Your task to perform on an android device: turn pop-ups on in chrome Image 0: 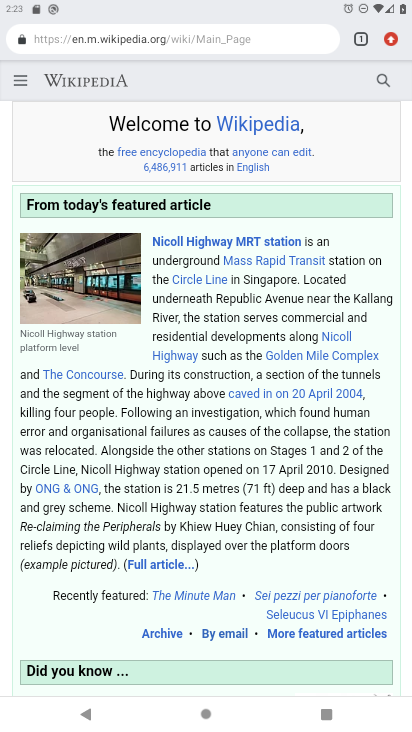
Step 0: click (387, 43)
Your task to perform on an android device: turn pop-ups on in chrome Image 1: 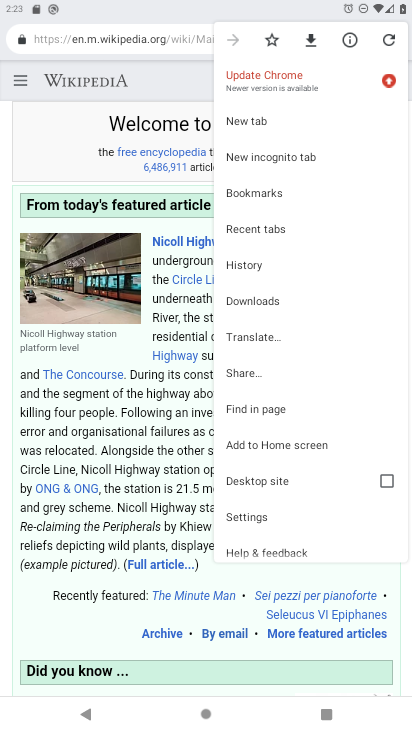
Step 1: click (261, 509)
Your task to perform on an android device: turn pop-ups on in chrome Image 2: 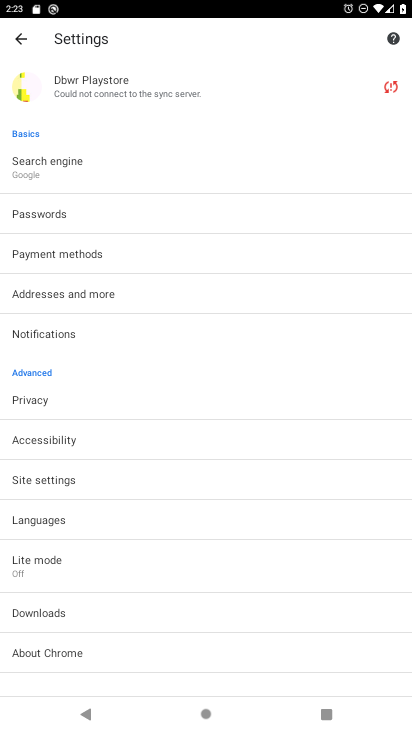
Step 2: click (162, 486)
Your task to perform on an android device: turn pop-ups on in chrome Image 3: 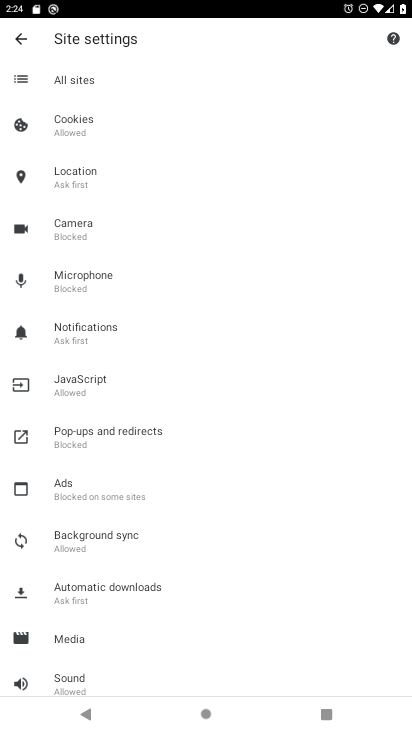
Step 3: click (156, 437)
Your task to perform on an android device: turn pop-ups on in chrome Image 4: 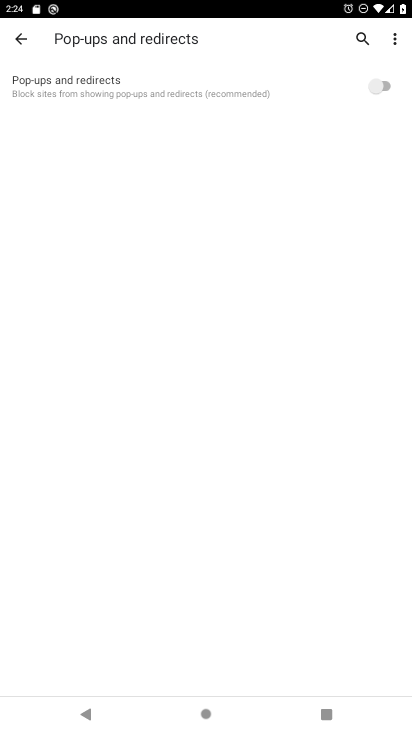
Step 4: click (352, 85)
Your task to perform on an android device: turn pop-ups on in chrome Image 5: 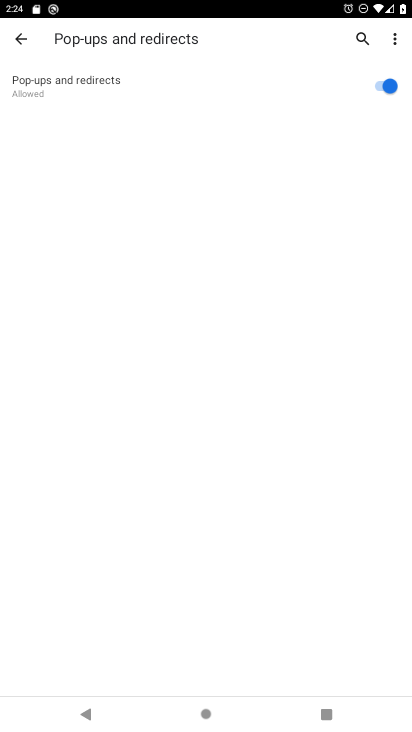
Step 5: task complete